Your task to perform on an android device: open app "Truecaller" Image 0: 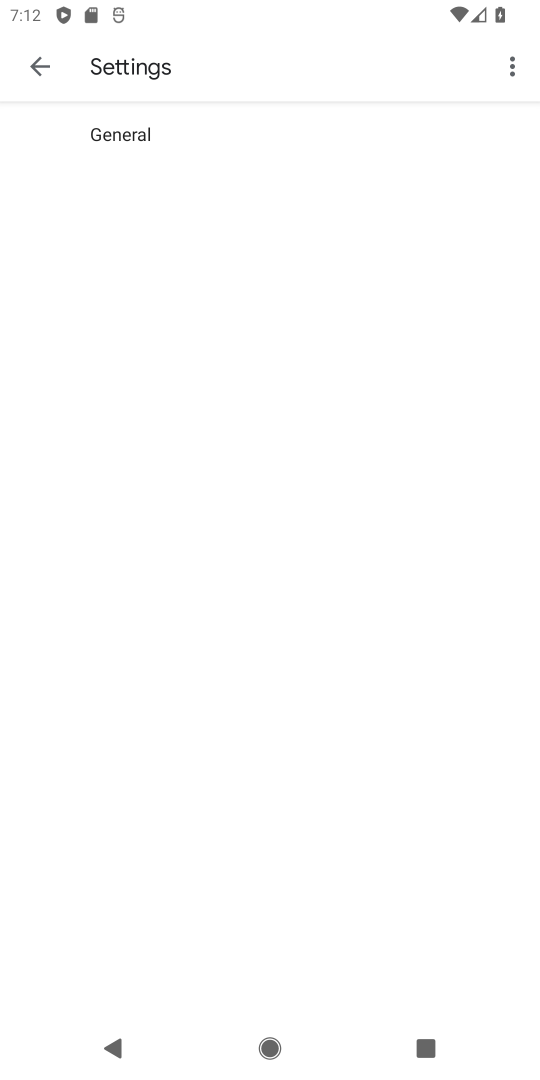
Step 0: press back button
Your task to perform on an android device: open app "Truecaller" Image 1: 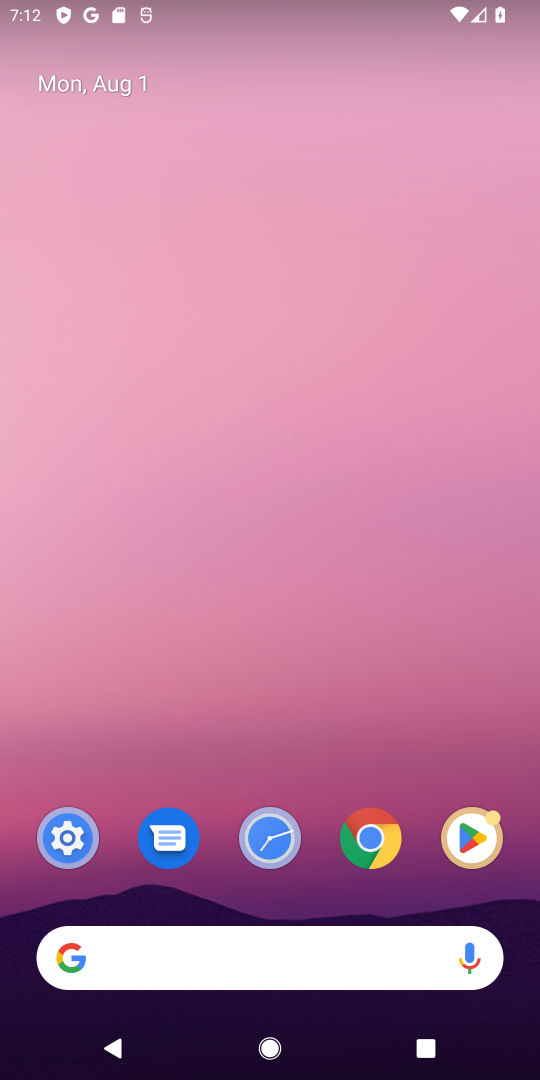
Step 1: drag from (231, 913) to (340, 0)
Your task to perform on an android device: open app "Truecaller" Image 2: 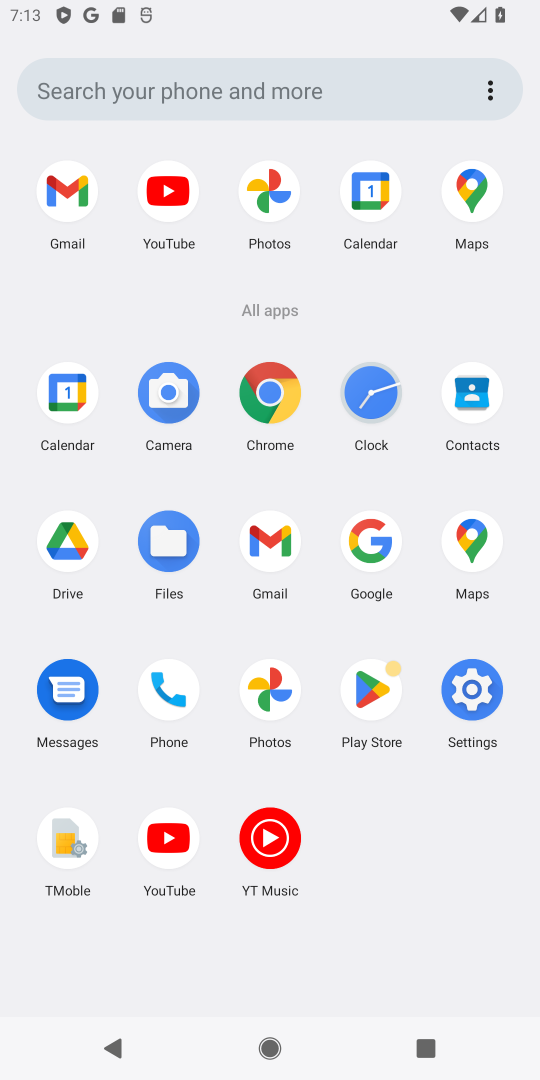
Step 2: click (355, 695)
Your task to perform on an android device: open app "Truecaller" Image 3: 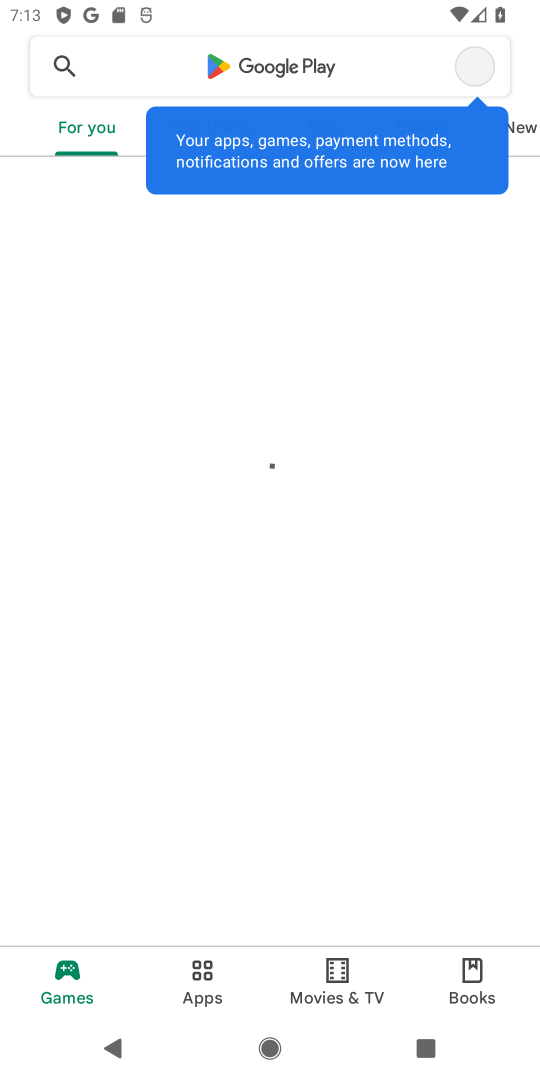
Step 3: click (242, 57)
Your task to perform on an android device: open app "Truecaller" Image 4: 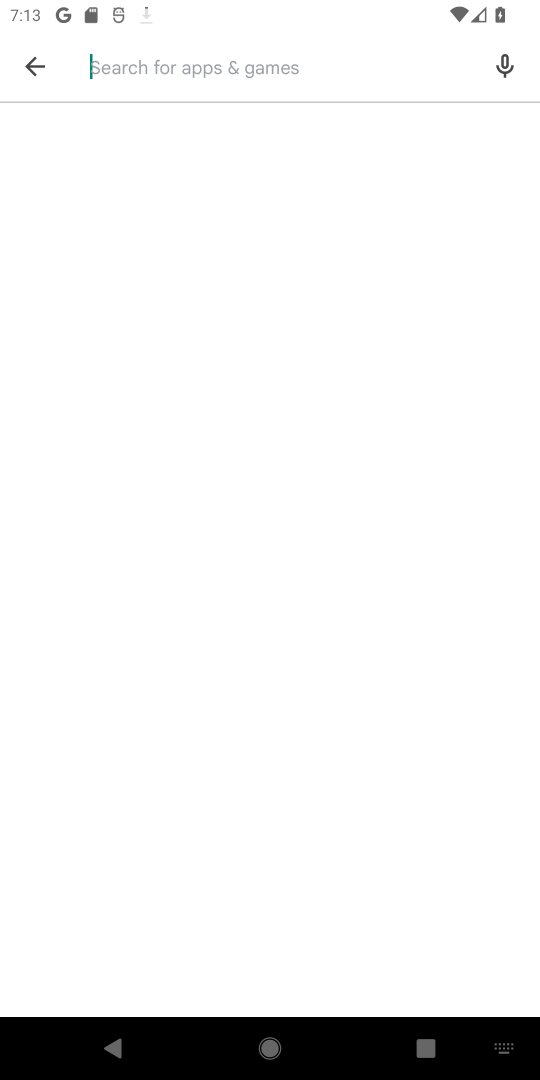
Step 4: type "Truecaller"
Your task to perform on an android device: open app "Truecaller" Image 5: 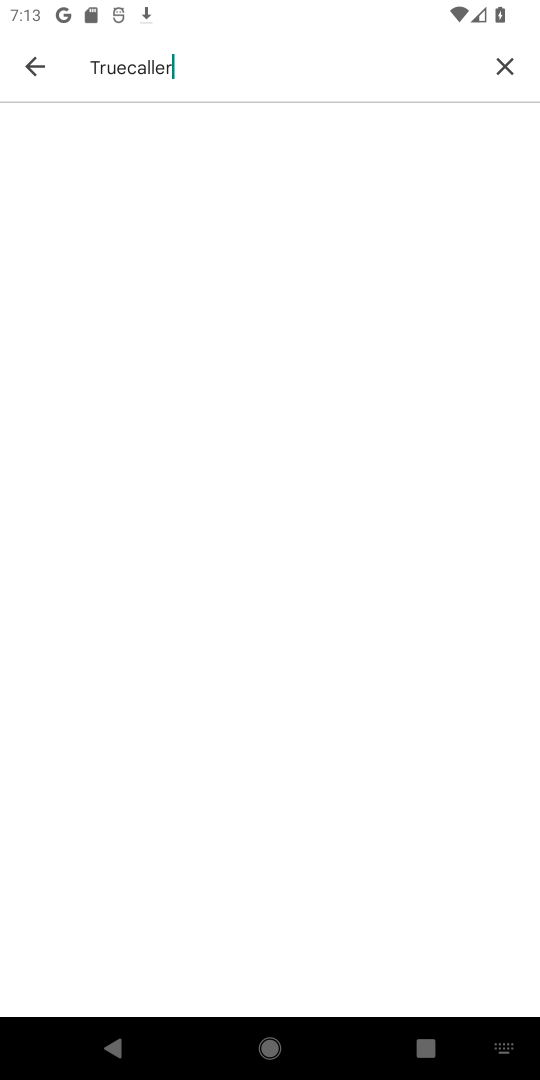
Step 5: type ""
Your task to perform on an android device: open app "Truecaller" Image 6: 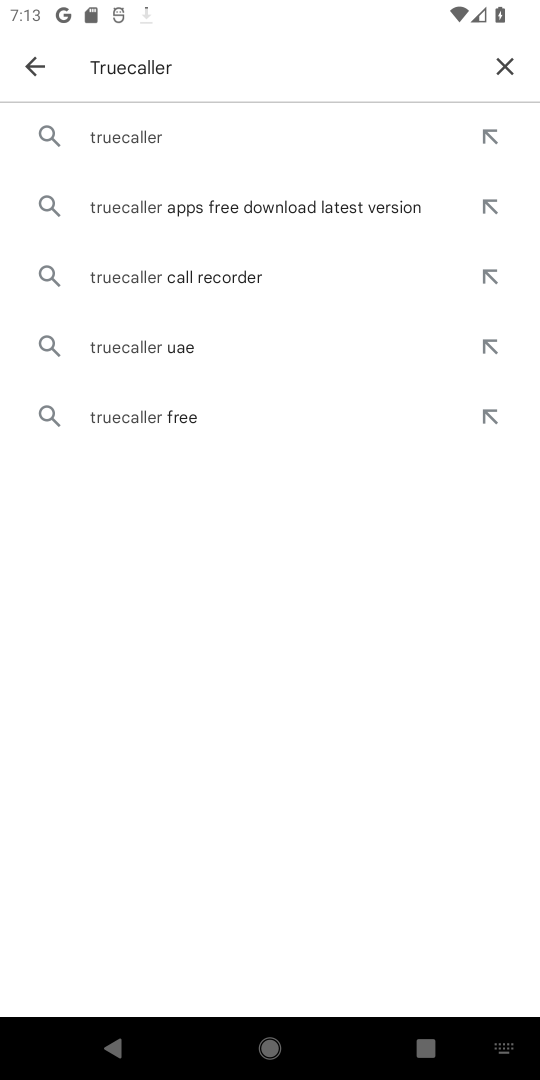
Step 6: click (104, 143)
Your task to perform on an android device: open app "Truecaller" Image 7: 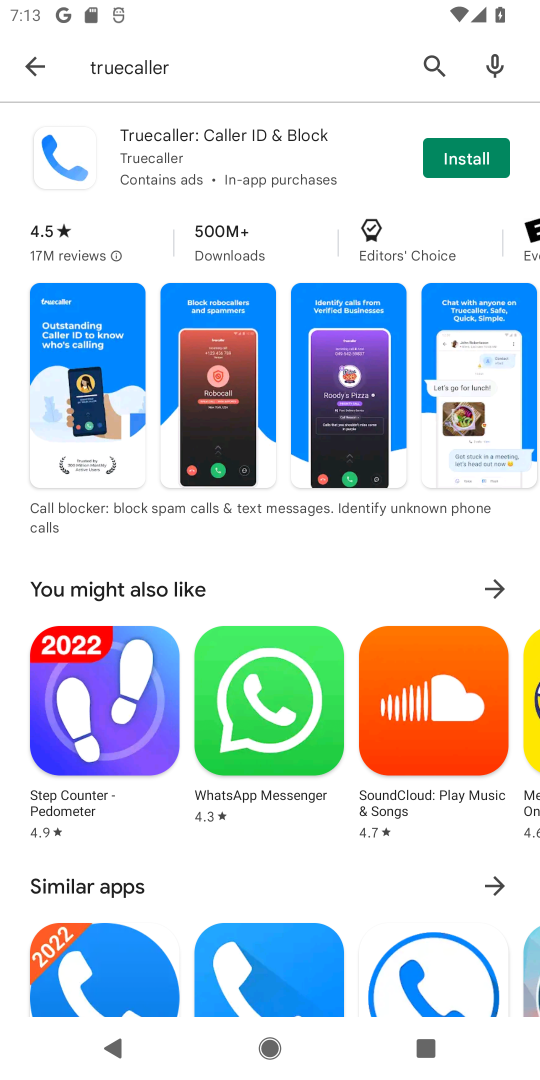
Step 7: click (338, 160)
Your task to perform on an android device: open app "Truecaller" Image 8: 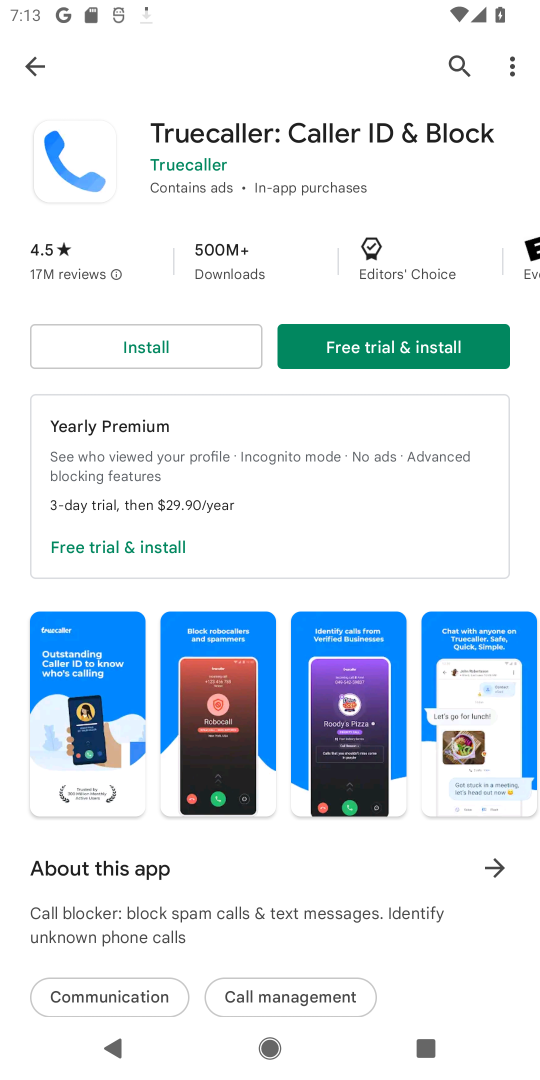
Step 8: task complete